Your task to perform on an android device: What's on the menu at Papa Murphy's? Image 0: 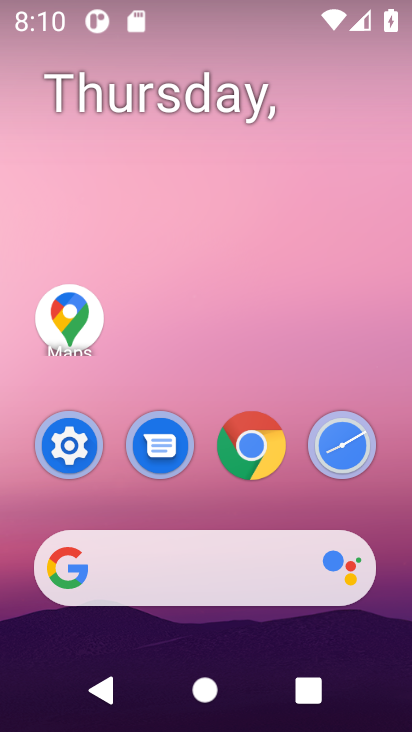
Step 0: click (181, 580)
Your task to perform on an android device: What's on the menu at Papa Murphy's? Image 1: 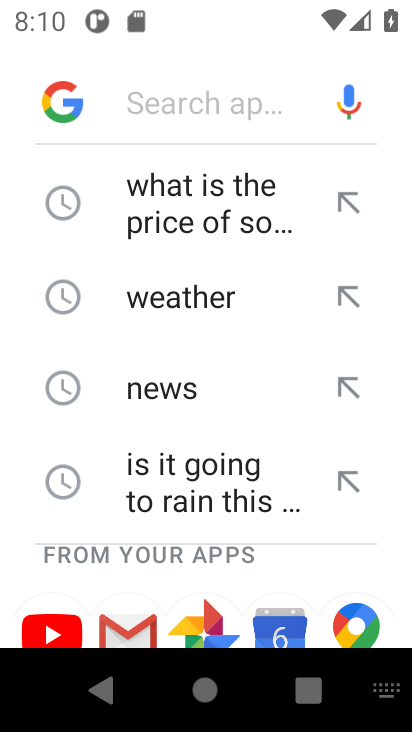
Step 1: type "What's on the menu at Papa Murphy's?"
Your task to perform on an android device: What's on the menu at Papa Murphy's? Image 2: 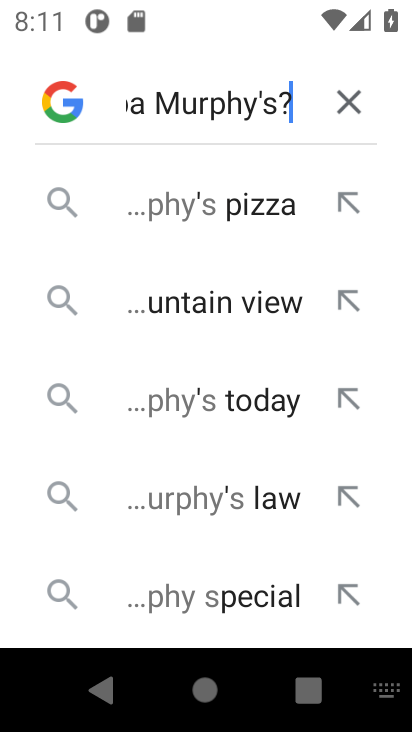
Step 2: click (220, 203)
Your task to perform on an android device: What's on the menu at Papa Murphy's? Image 3: 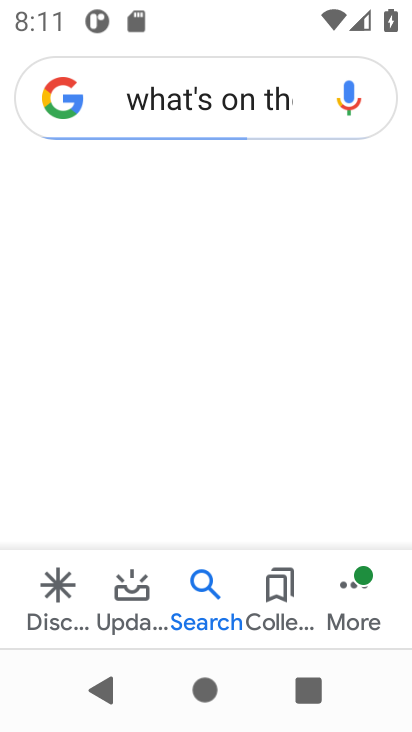
Step 3: task complete